Your task to perform on an android device: Go to Google maps Image 0: 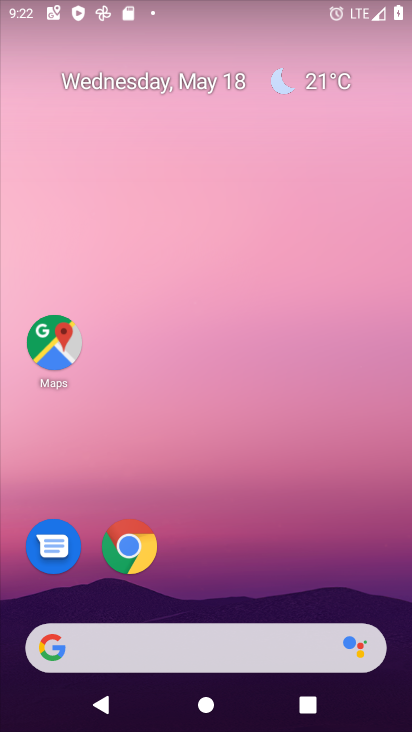
Step 0: drag from (405, 651) to (338, 114)
Your task to perform on an android device: Go to Google maps Image 1: 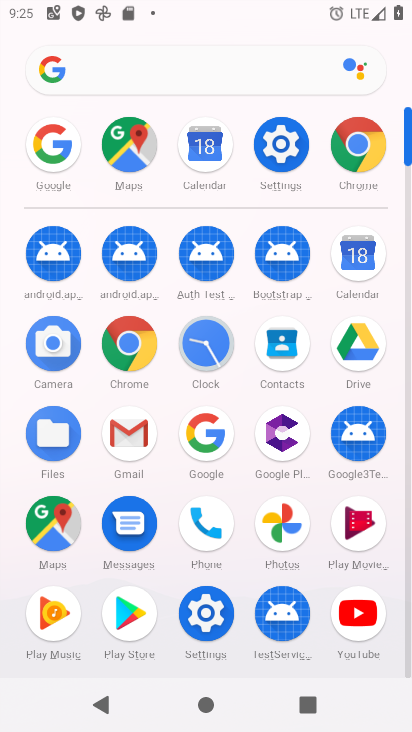
Step 1: click (134, 147)
Your task to perform on an android device: Go to Google maps Image 2: 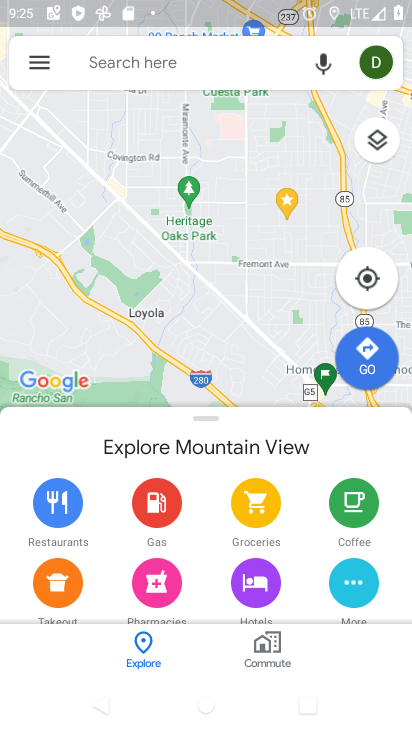
Step 2: task complete